Your task to perform on an android device: open device folders in google photos Image 0: 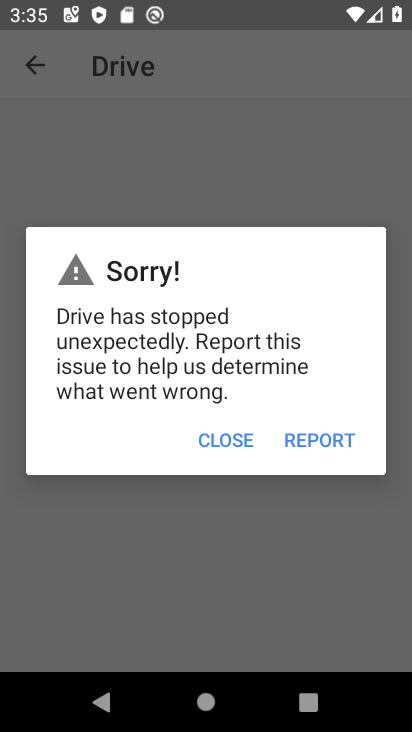
Step 0: press home button
Your task to perform on an android device: open device folders in google photos Image 1: 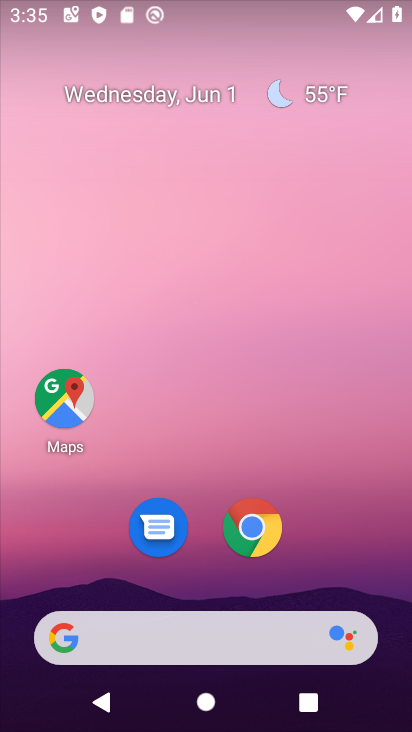
Step 1: drag from (375, 592) to (318, 124)
Your task to perform on an android device: open device folders in google photos Image 2: 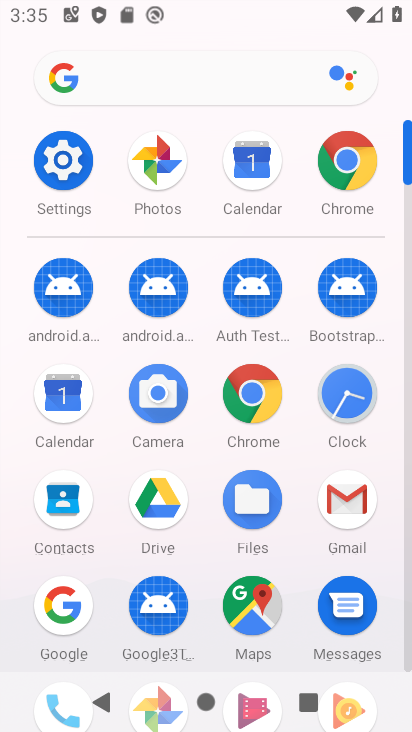
Step 2: click (152, 167)
Your task to perform on an android device: open device folders in google photos Image 3: 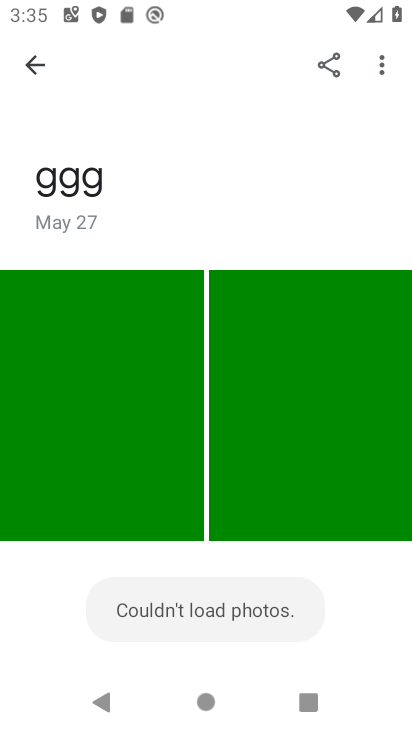
Step 3: press back button
Your task to perform on an android device: open device folders in google photos Image 4: 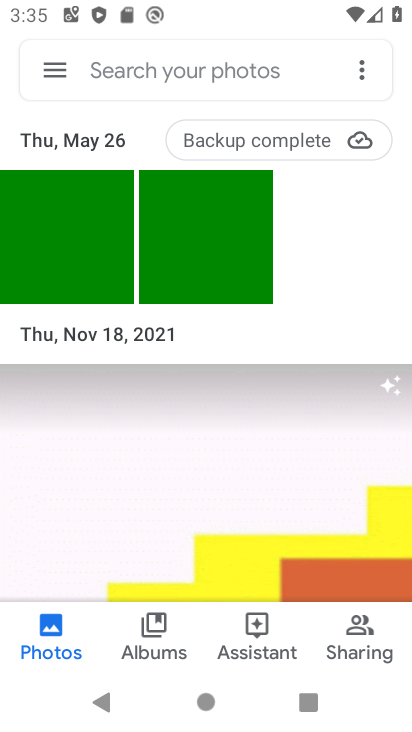
Step 4: click (57, 68)
Your task to perform on an android device: open device folders in google photos Image 5: 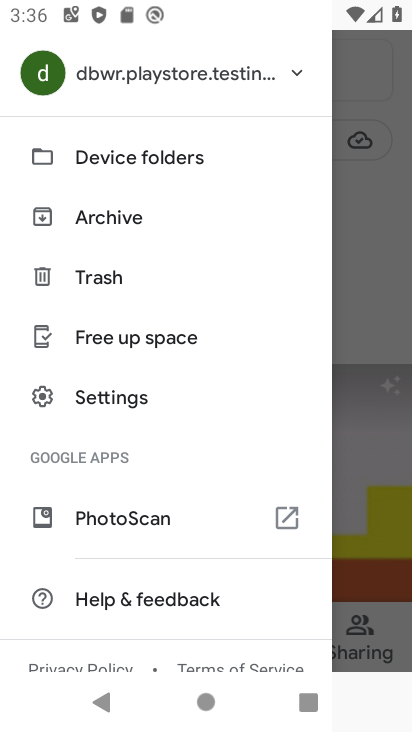
Step 5: click (104, 155)
Your task to perform on an android device: open device folders in google photos Image 6: 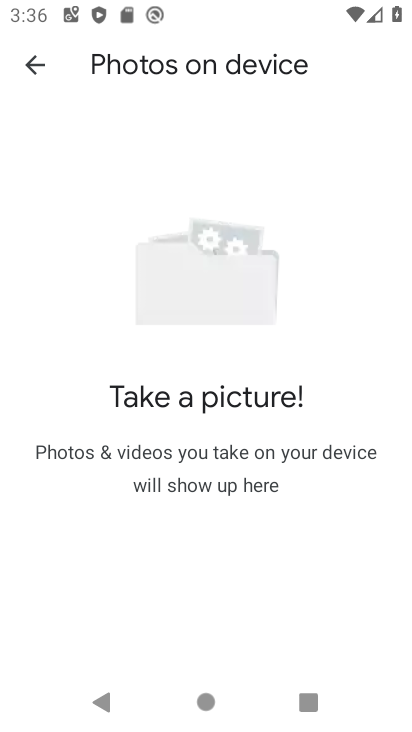
Step 6: task complete